Your task to perform on an android device: check out phone information Image 0: 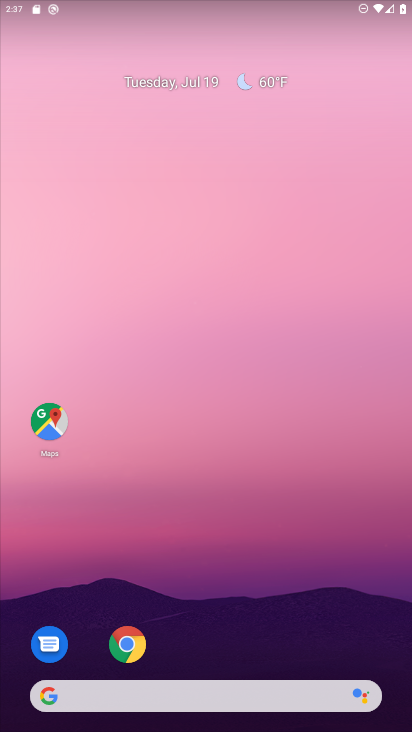
Step 0: drag from (384, 714) to (275, 38)
Your task to perform on an android device: check out phone information Image 1: 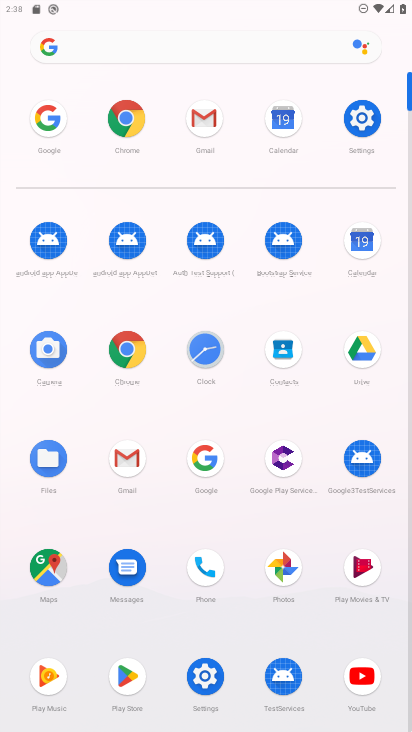
Step 1: click (207, 564)
Your task to perform on an android device: check out phone information Image 2: 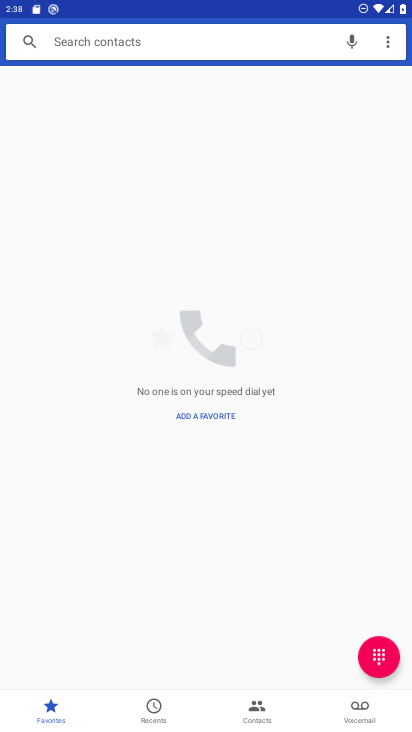
Step 2: press home button
Your task to perform on an android device: check out phone information Image 3: 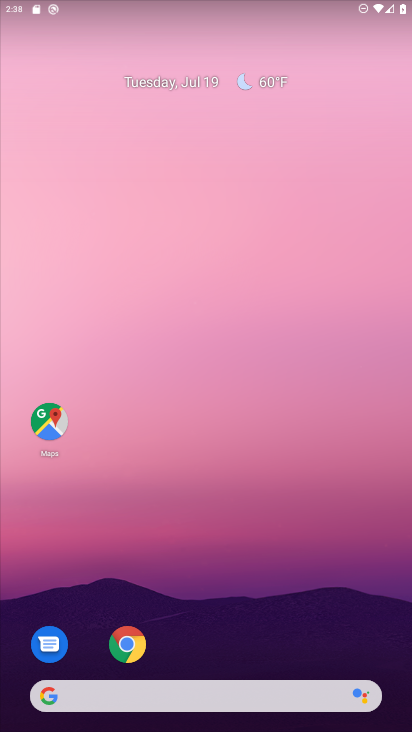
Step 3: drag from (395, 717) to (349, 132)
Your task to perform on an android device: check out phone information Image 4: 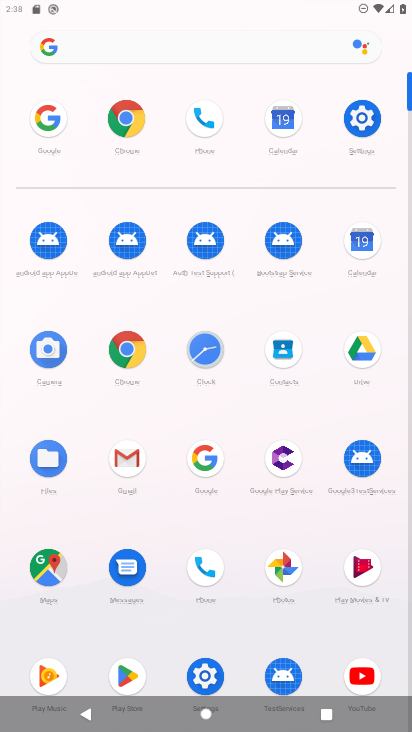
Step 4: click (374, 121)
Your task to perform on an android device: check out phone information Image 5: 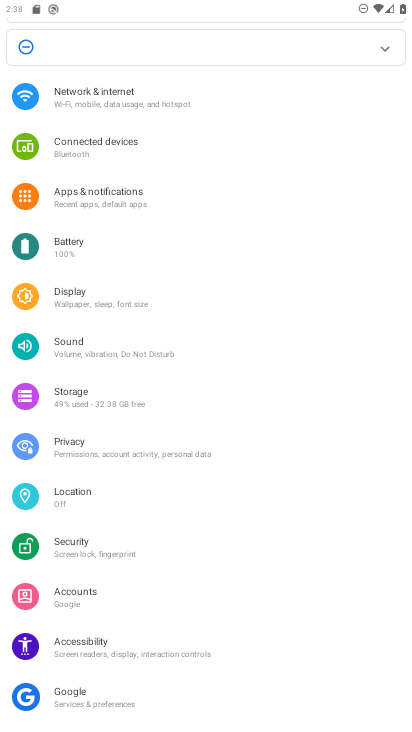
Step 5: drag from (251, 530) to (261, 332)
Your task to perform on an android device: check out phone information Image 6: 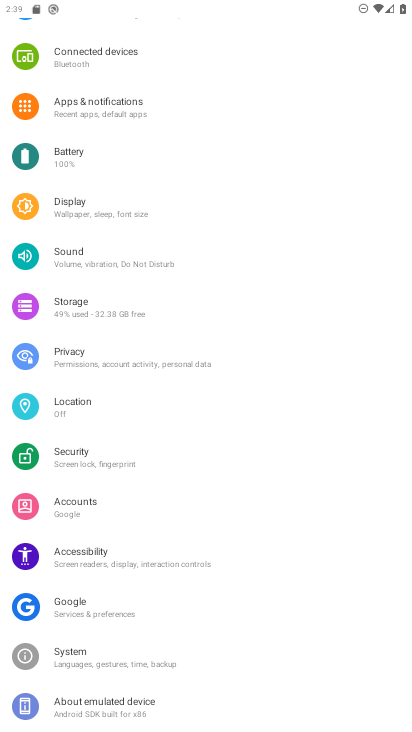
Step 6: click (80, 694)
Your task to perform on an android device: check out phone information Image 7: 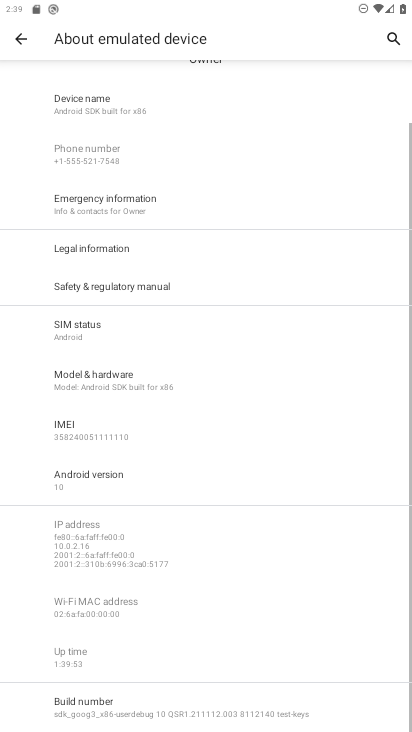
Step 7: task complete